Your task to perform on an android device: clear all cookies in the chrome app Image 0: 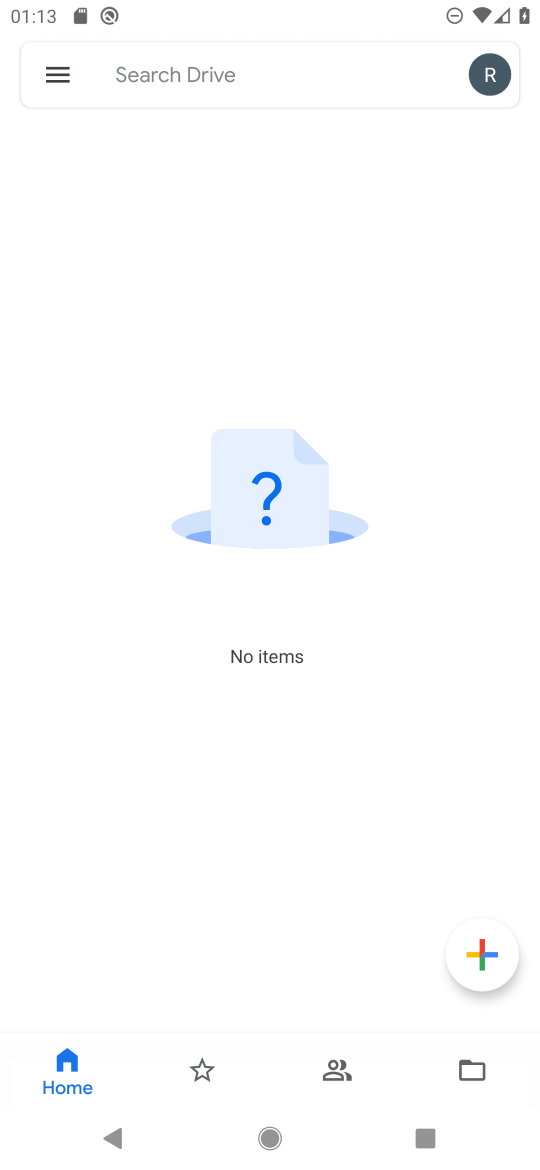
Step 0: press home button
Your task to perform on an android device: clear all cookies in the chrome app Image 1: 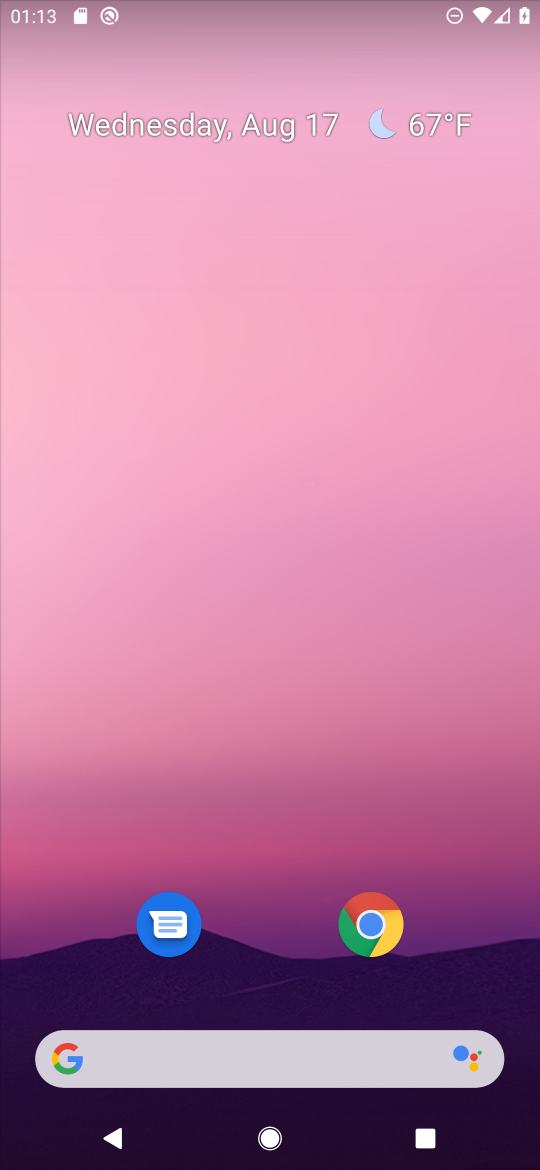
Step 1: click (377, 939)
Your task to perform on an android device: clear all cookies in the chrome app Image 2: 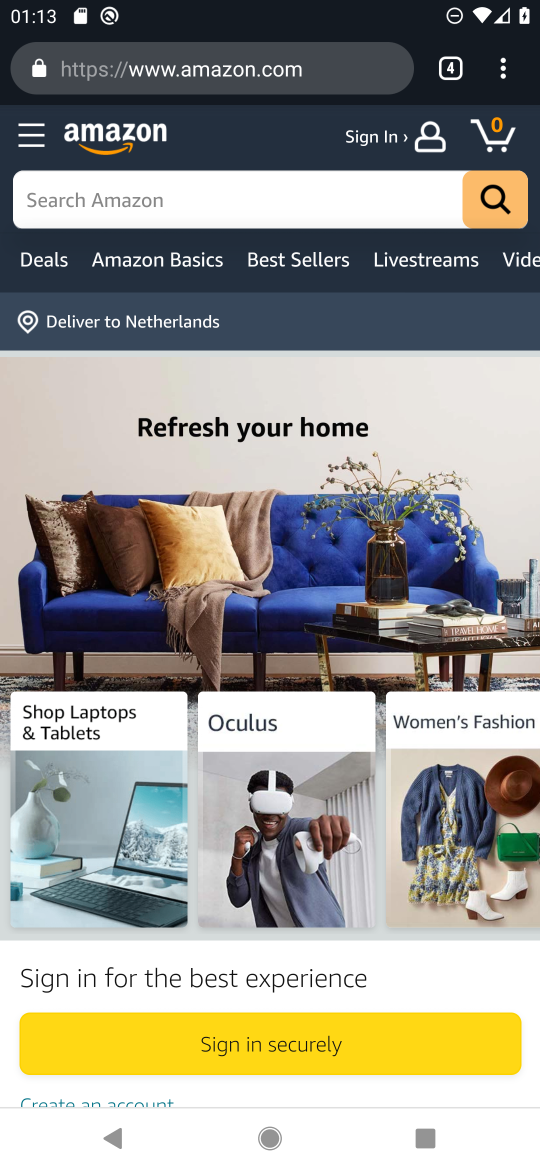
Step 2: click (520, 77)
Your task to perform on an android device: clear all cookies in the chrome app Image 3: 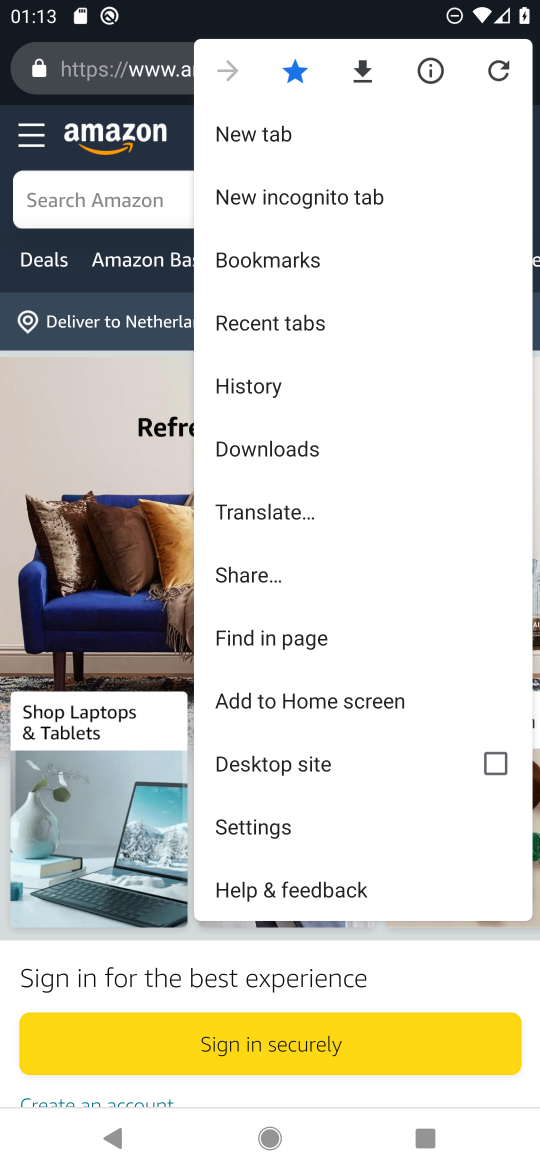
Step 3: click (304, 816)
Your task to perform on an android device: clear all cookies in the chrome app Image 4: 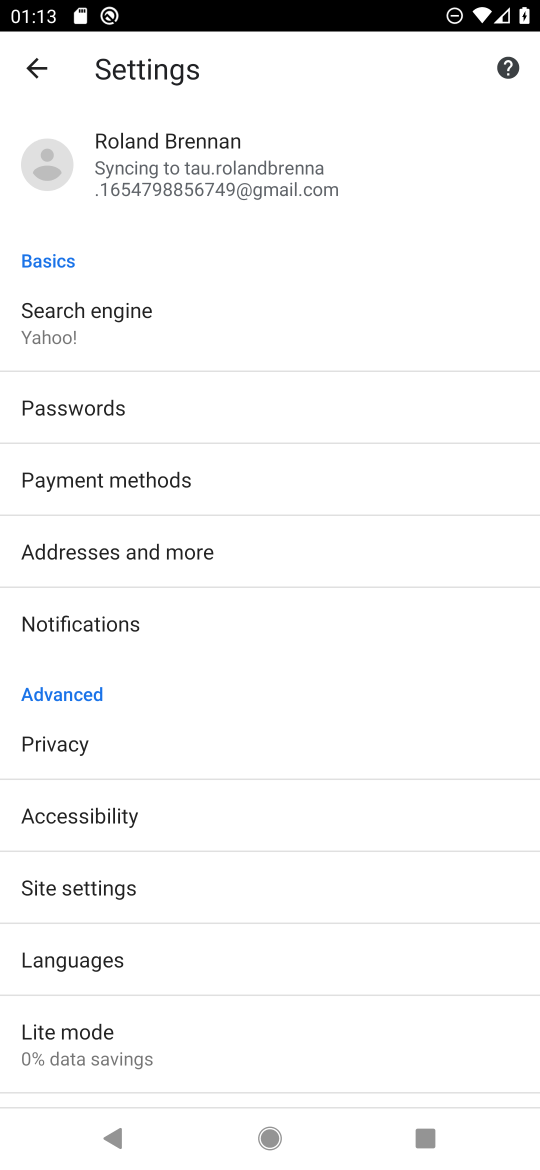
Step 4: click (31, 61)
Your task to perform on an android device: clear all cookies in the chrome app Image 5: 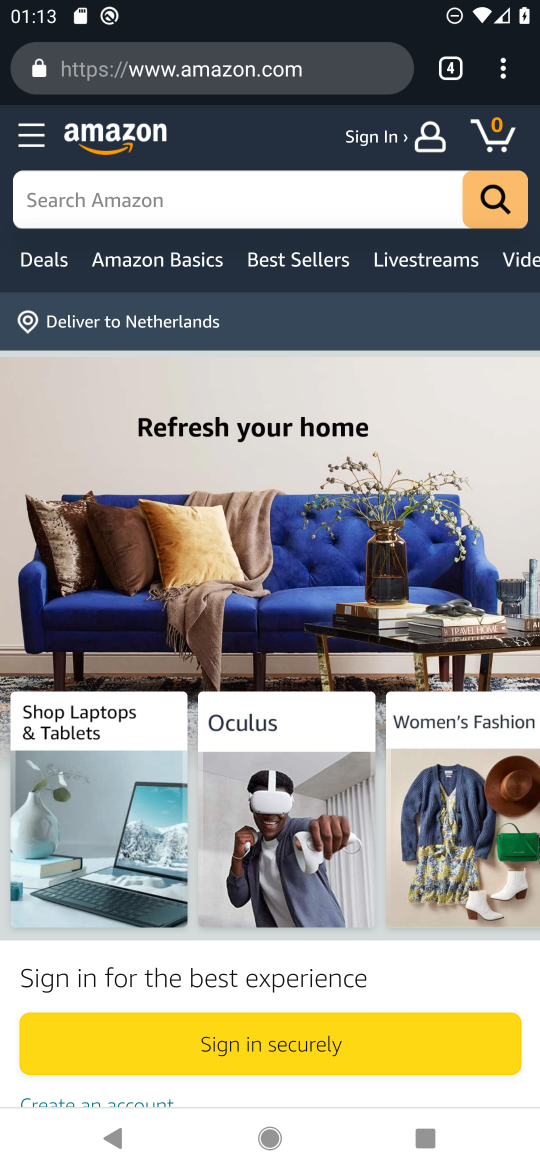
Step 5: click (514, 74)
Your task to perform on an android device: clear all cookies in the chrome app Image 6: 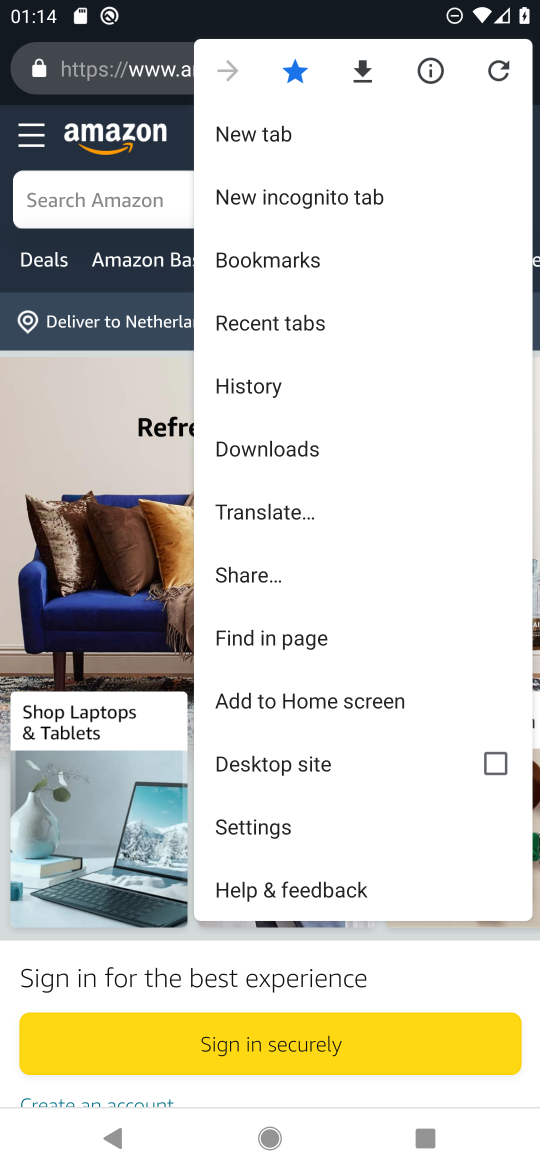
Step 6: click (268, 387)
Your task to perform on an android device: clear all cookies in the chrome app Image 7: 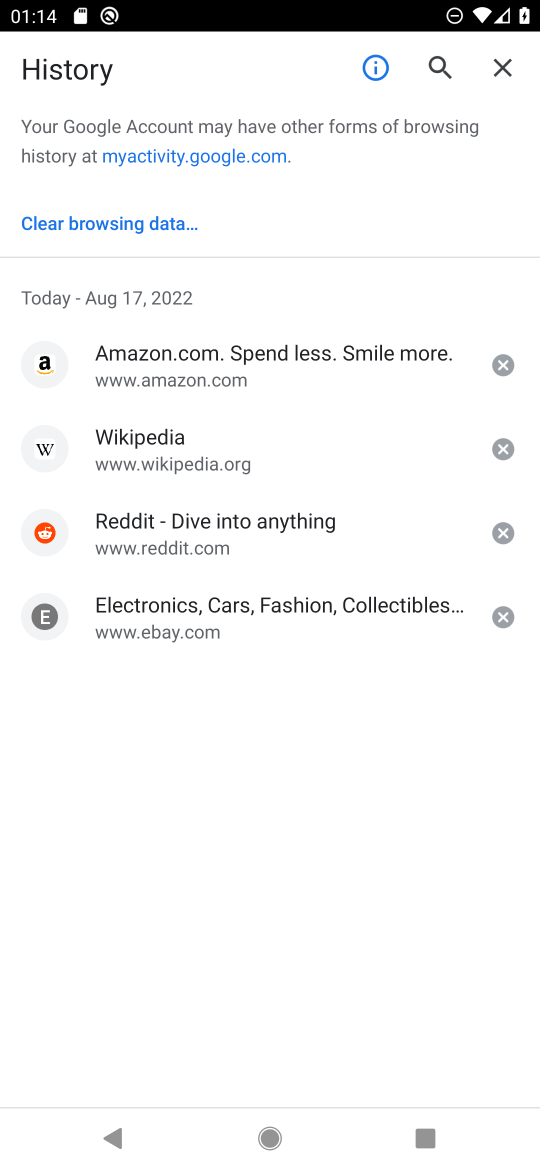
Step 7: click (132, 224)
Your task to perform on an android device: clear all cookies in the chrome app Image 8: 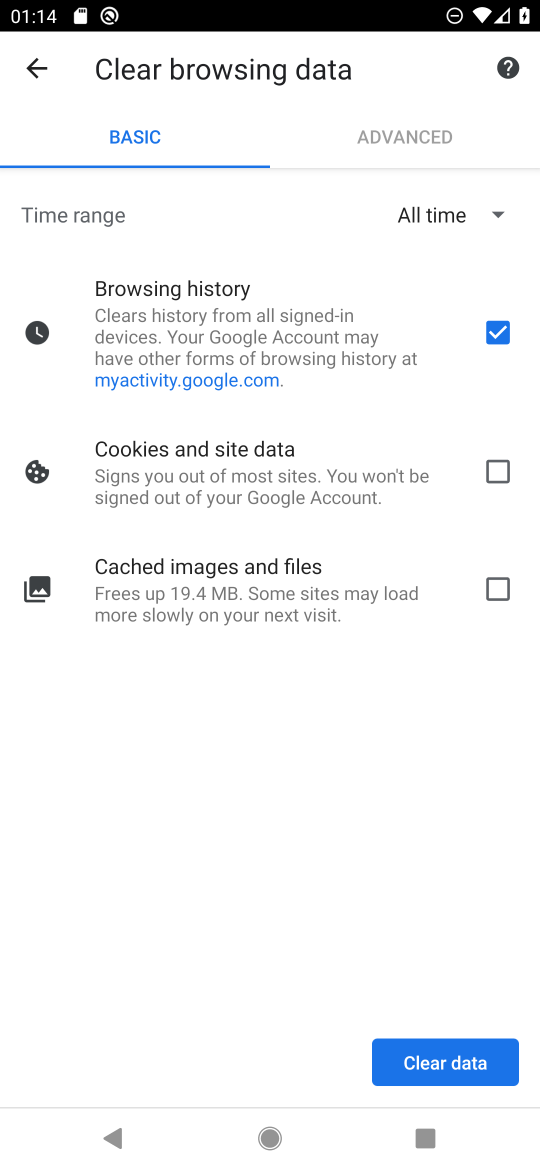
Step 8: click (501, 467)
Your task to perform on an android device: clear all cookies in the chrome app Image 9: 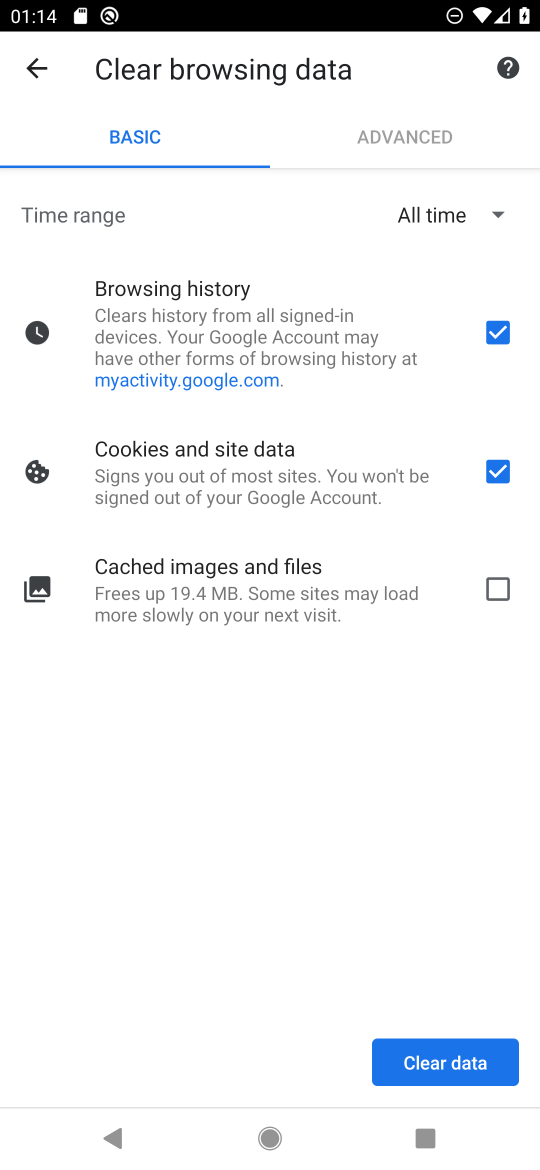
Step 9: click (500, 332)
Your task to perform on an android device: clear all cookies in the chrome app Image 10: 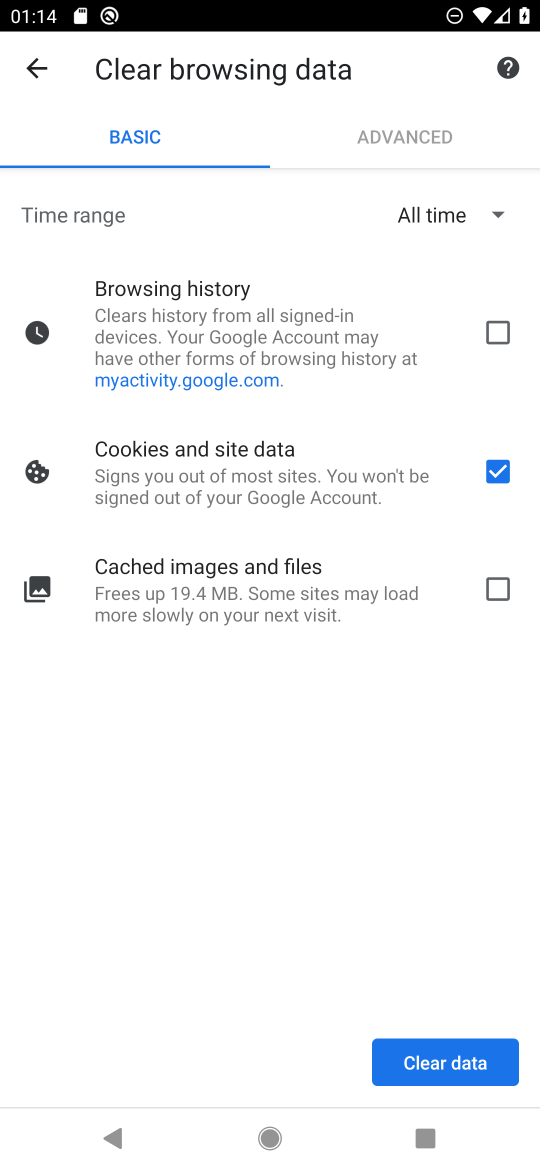
Step 10: click (451, 1048)
Your task to perform on an android device: clear all cookies in the chrome app Image 11: 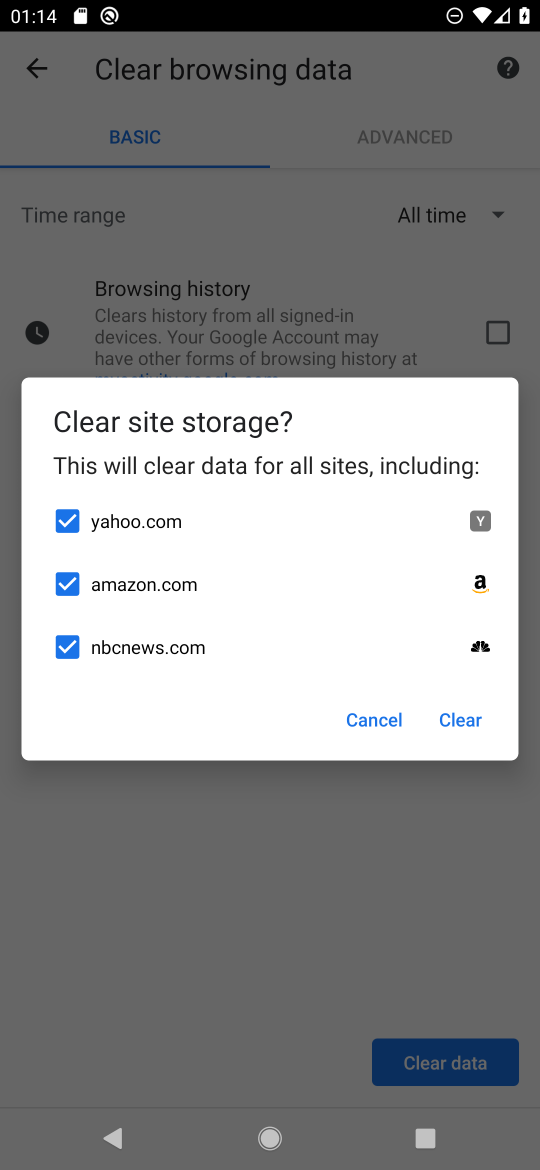
Step 11: task complete